Your task to perform on an android device: Go to Amazon Image 0: 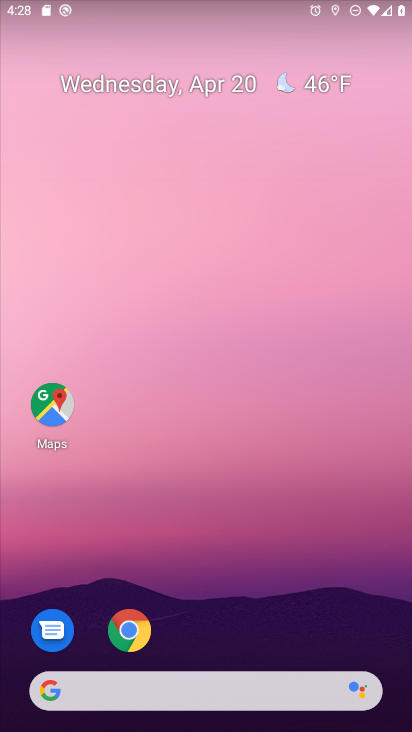
Step 0: drag from (292, 656) to (271, 63)
Your task to perform on an android device: Go to Amazon Image 1: 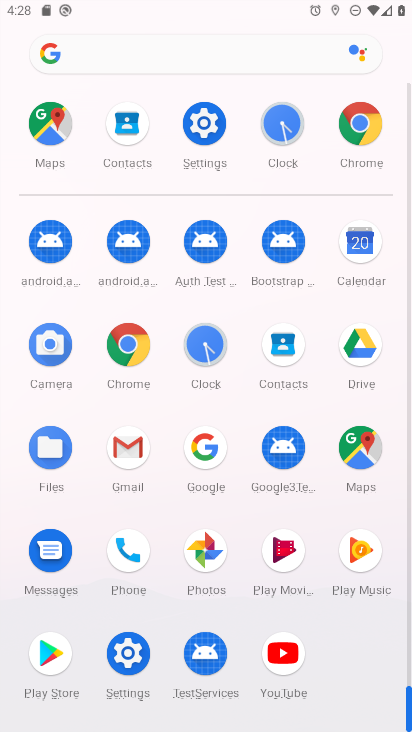
Step 1: click (136, 349)
Your task to perform on an android device: Go to Amazon Image 2: 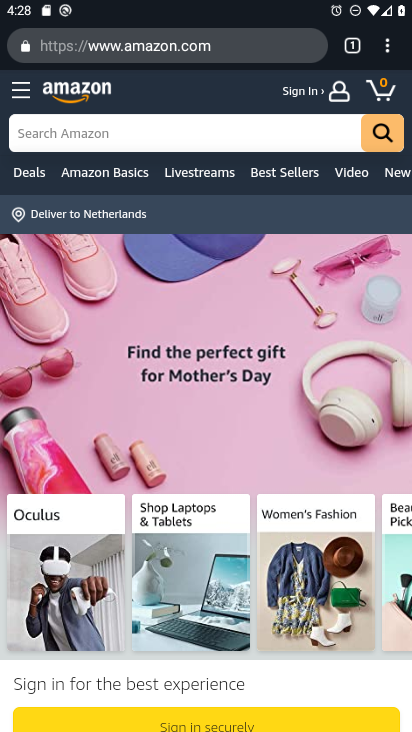
Step 2: task complete